Your task to perform on an android device: star an email in the gmail app Image 0: 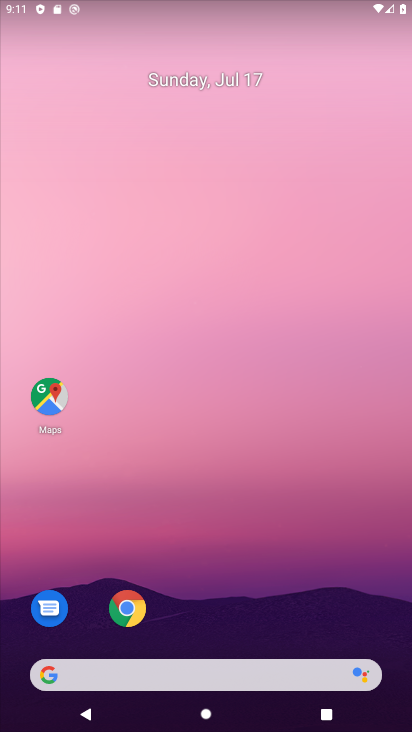
Step 0: drag from (253, 504) to (185, 45)
Your task to perform on an android device: star an email in the gmail app Image 1: 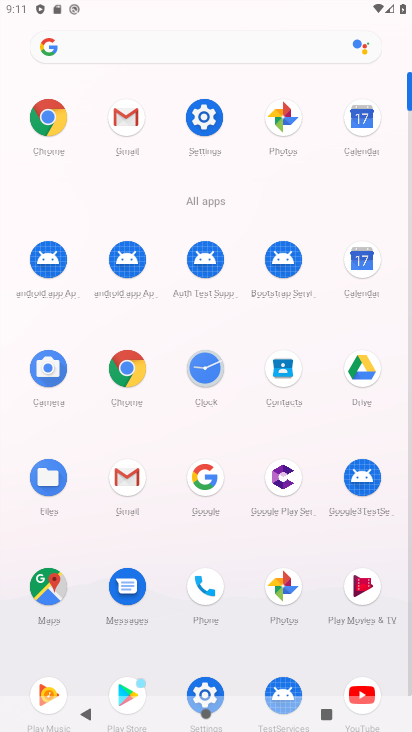
Step 1: click (131, 104)
Your task to perform on an android device: star an email in the gmail app Image 2: 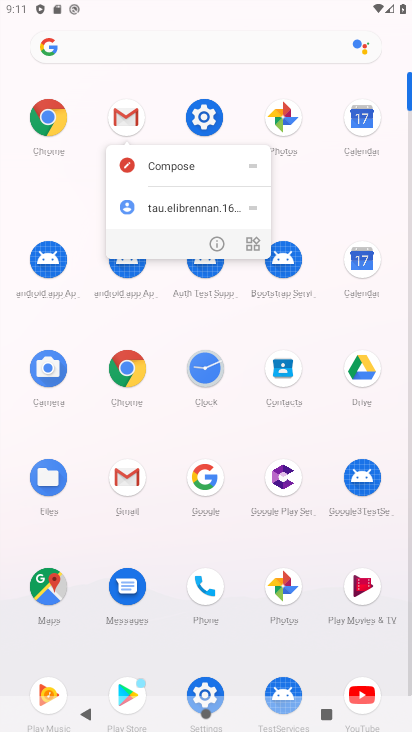
Step 2: click (128, 115)
Your task to perform on an android device: star an email in the gmail app Image 3: 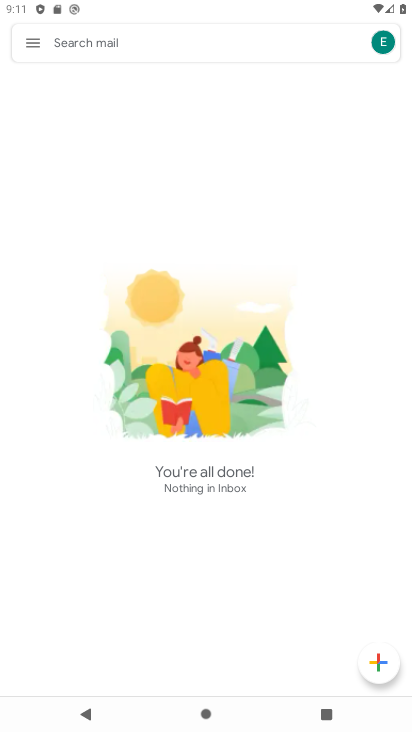
Step 3: task complete